Your task to perform on an android device: Search for Italian restaurants on Maps Image 0: 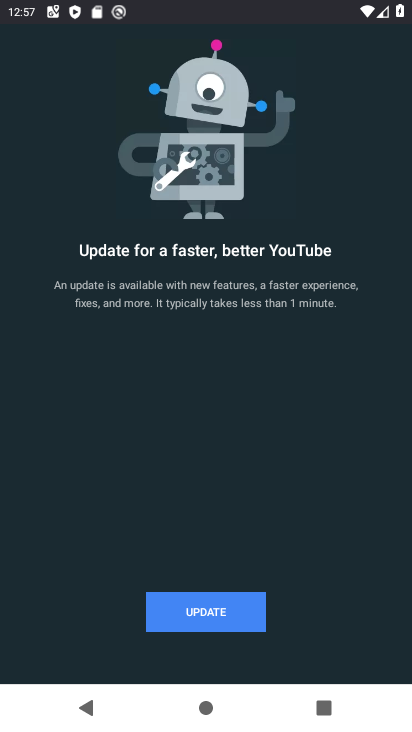
Step 0: press home button
Your task to perform on an android device: Search for Italian restaurants on Maps Image 1: 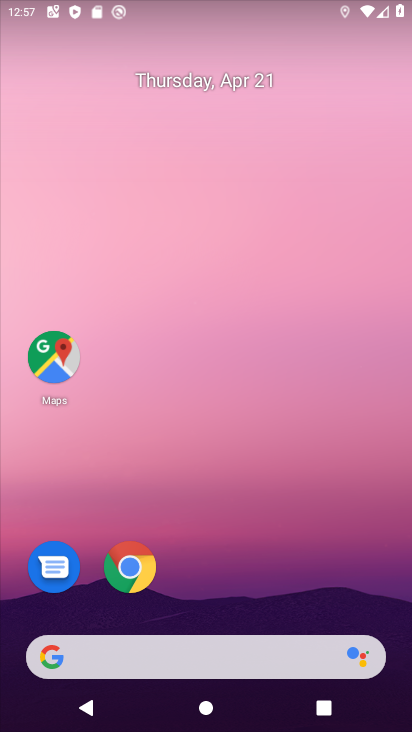
Step 1: click (59, 351)
Your task to perform on an android device: Search for Italian restaurants on Maps Image 2: 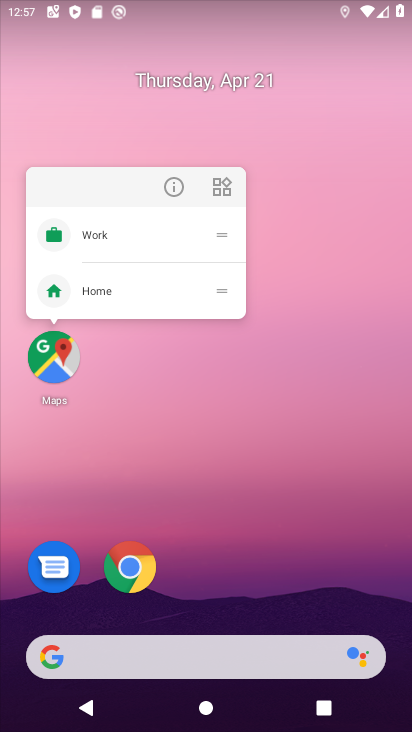
Step 2: click (51, 348)
Your task to perform on an android device: Search for Italian restaurants on Maps Image 3: 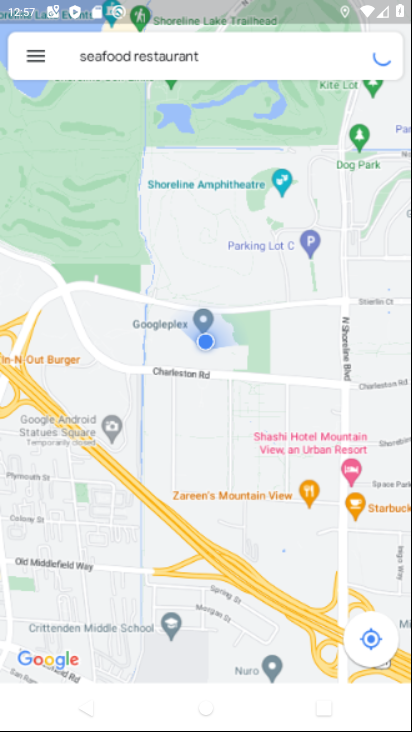
Step 3: click (227, 60)
Your task to perform on an android device: Search for Italian restaurants on Maps Image 4: 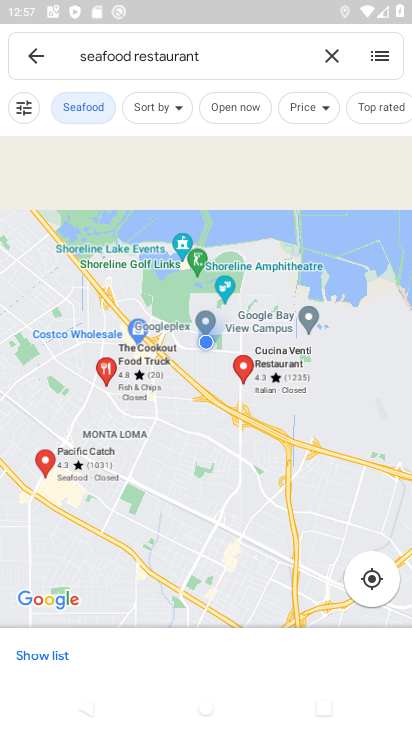
Step 4: click (325, 49)
Your task to perform on an android device: Search for Italian restaurants on Maps Image 5: 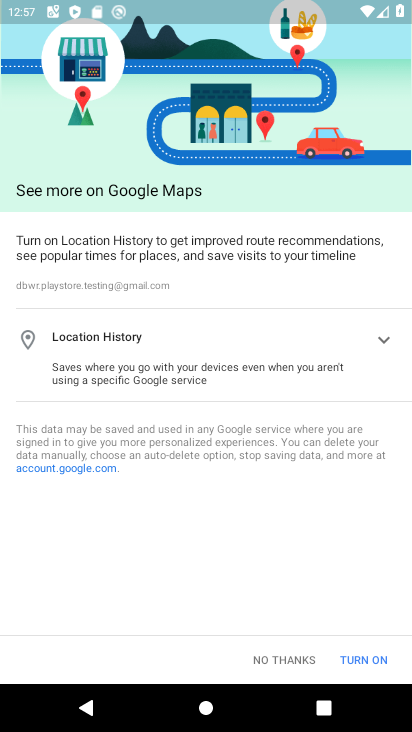
Step 5: click (262, 646)
Your task to perform on an android device: Search for Italian restaurants on Maps Image 6: 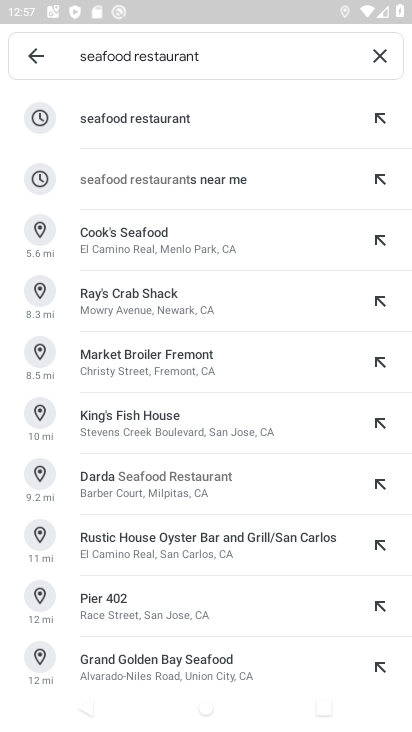
Step 6: click (32, 51)
Your task to perform on an android device: Search for Italian restaurants on Maps Image 7: 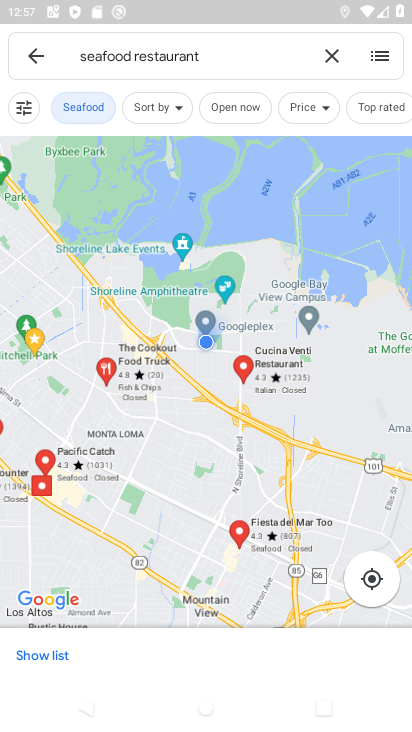
Step 7: click (328, 53)
Your task to perform on an android device: Search for Italian restaurants on Maps Image 8: 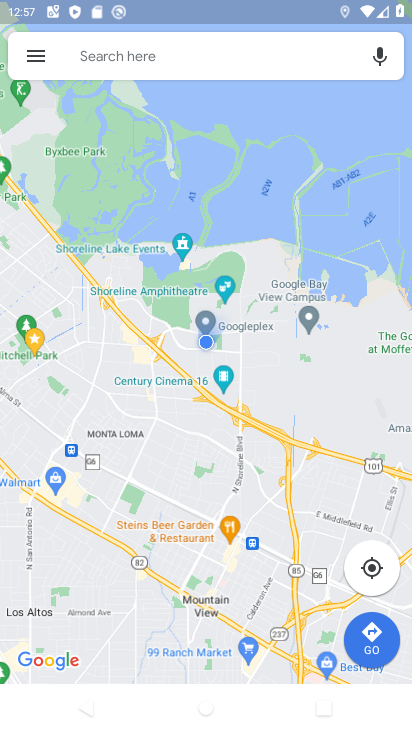
Step 8: click (170, 55)
Your task to perform on an android device: Search for Italian restaurants on Maps Image 9: 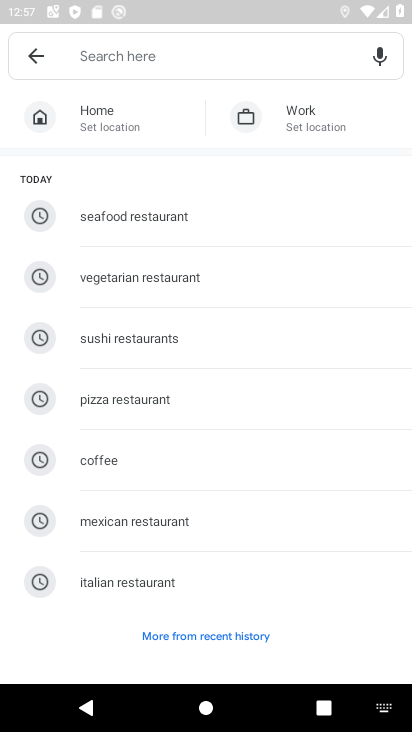
Step 9: click (112, 581)
Your task to perform on an android device: Search for Italian restaurants on Maps Image 10: 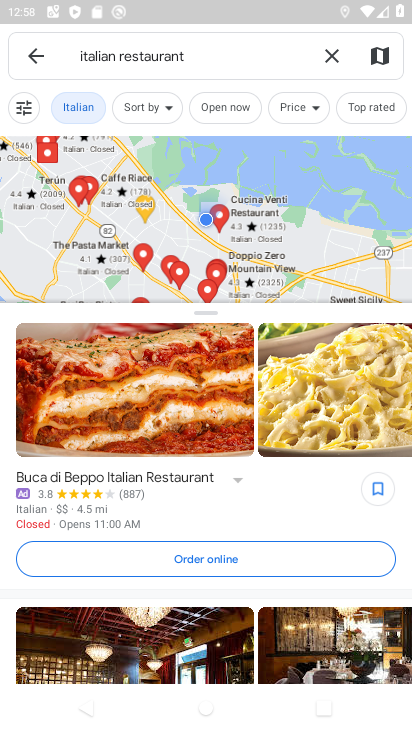
Step 10: task complete